Your task to perform on an android device: Go to privacy settings Image 0: 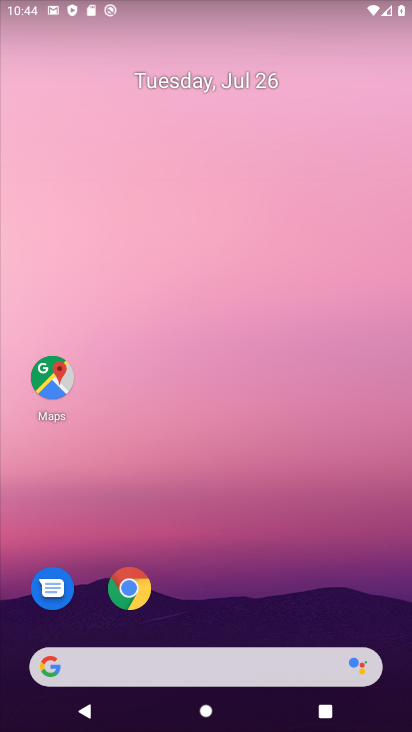
Step 0: drag from (253, 552) to (254, 234)
Your task to perform on an android device: Go to privacy settings Image 1: 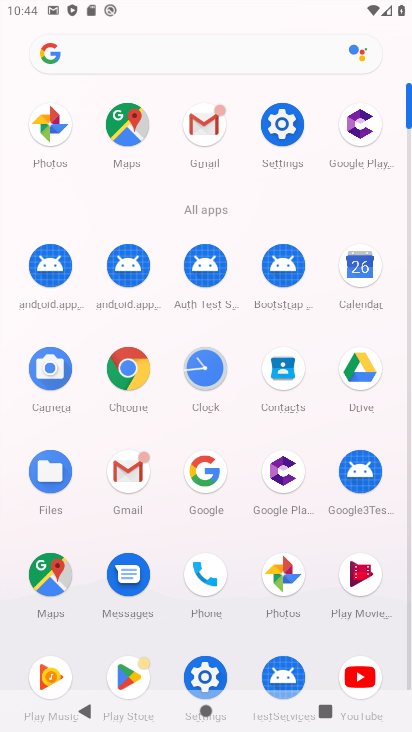
Step 1: click (277, 113)
Your task to perform on an android device: Go to privacy settings Image 2: 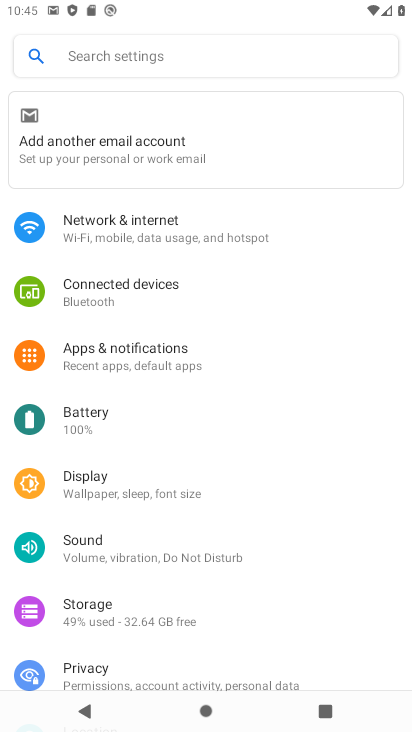
Step 2: click (132, 683)
Your task to perform on an android device: Go to privacy settings Image 3: 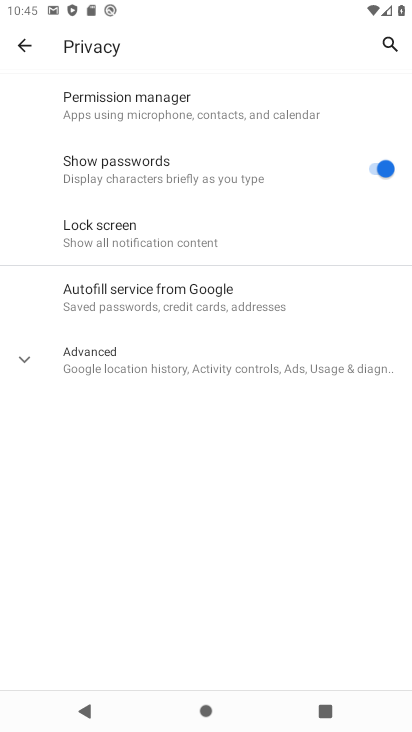
Step 3: task complete